Your task to perform on an android device: What's on my calendar today? Image 0: 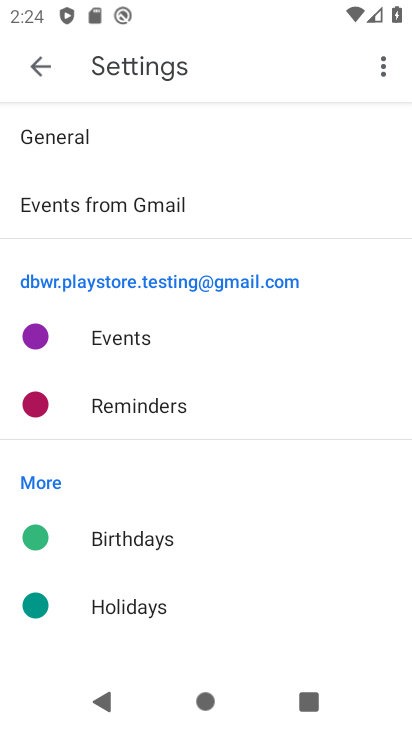
Step 0: press home button
Your task to perform on an android device: What's on my calendar today? Image 1: 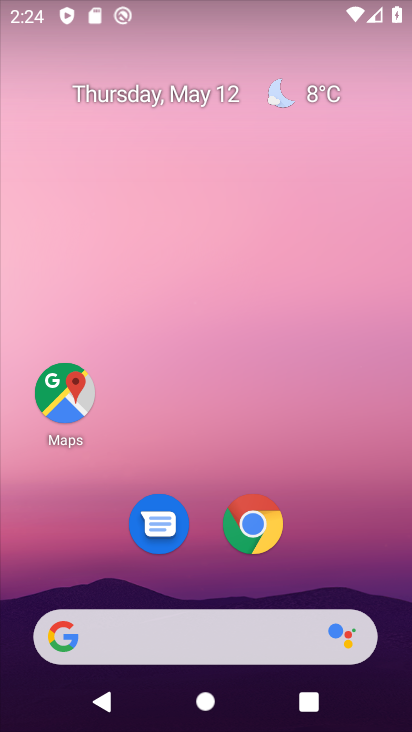
Step 1: drag from (196, 484) to (158, 90)
Your task to perform on an android device: What's on my calendar today? Image 2: 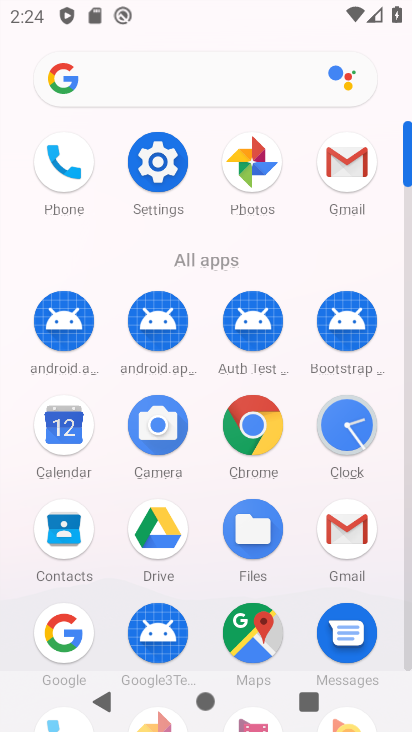
Step 2: click (63, 409)
Your task to perform on an android device: What's on my calendar today? Image 3: 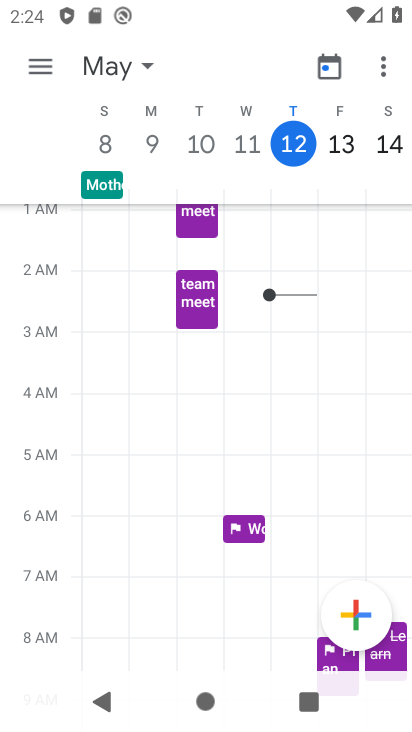
Step 3: click (293, 141)
Your task to perform on an android device: What's on my calendar today? Image 4: 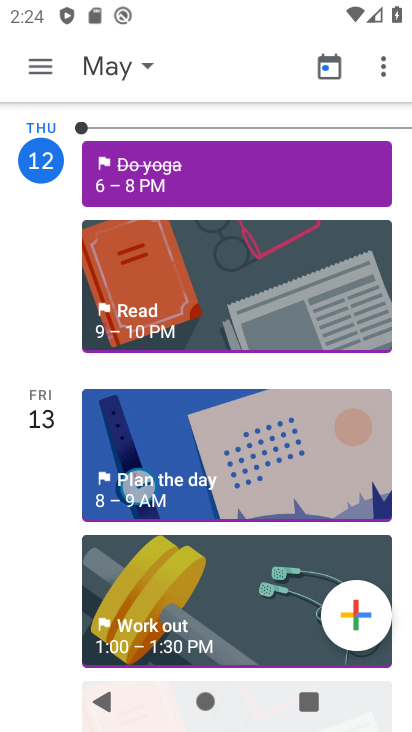
Step 4: task complete